Your task to perform on an android device: change the clock display to analog Image 0: 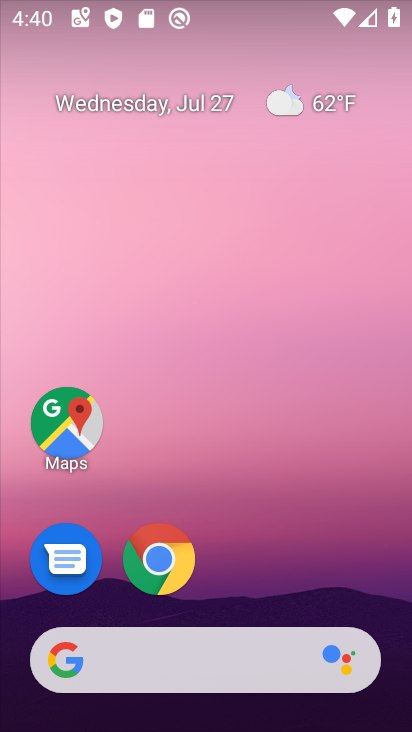
Step 0: drag from (252, 598) to (313, 2)
Your task to perform on an android device: change the clock display to analog Image 1: 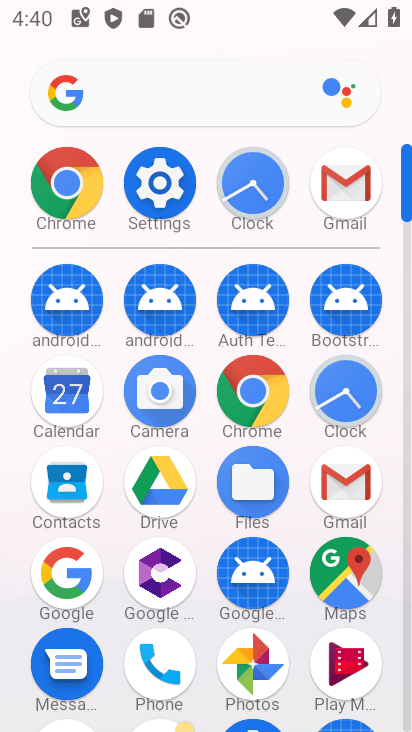
Step 1: click (357, 383)
Your task to perform on an android device: change the clock display to analog Image 2: 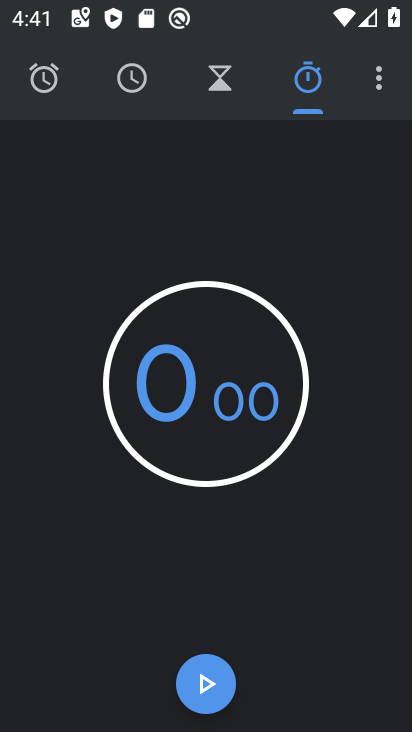
Step 2: click (380, 71)
Your task to perform on an android device: change the clock display to analog Image 3: 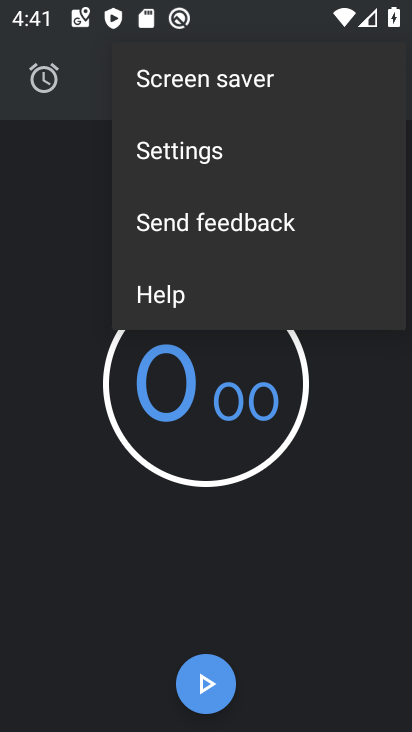
Step 3: click (168, 148)
Your task to perform on an android device: change the clock display to analog Image 4: 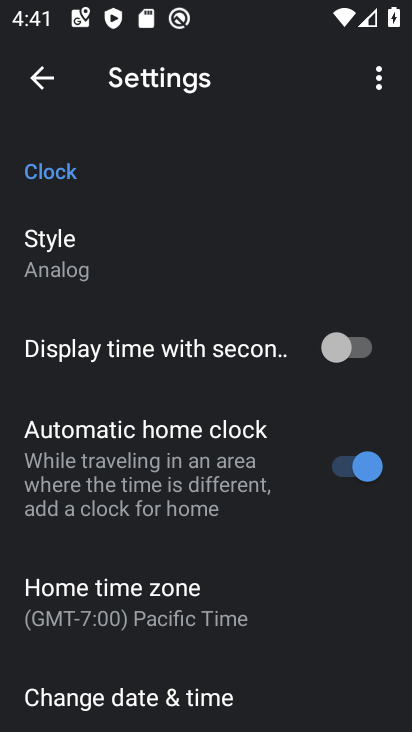
Step 4: task complete